Your task to perform on an android device: open chrome and create a bookmark for the current page Image 0: 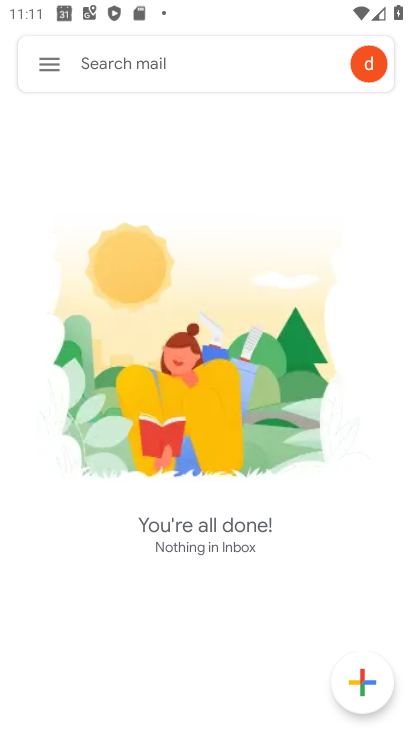
Step 0: press home button
Your task to perform on an android device: open chrome and create a bookmark for the current page Image 1: 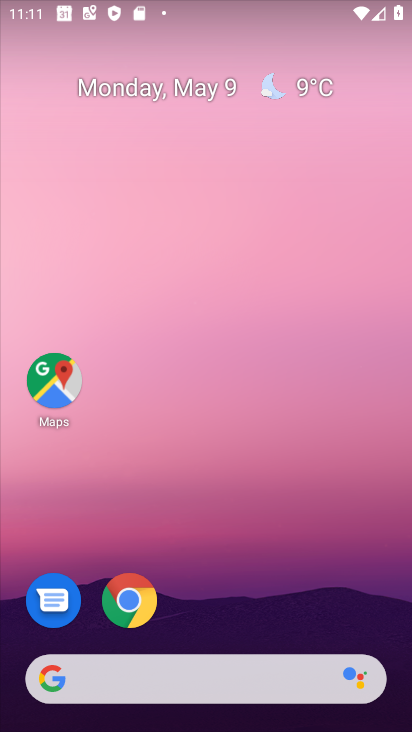
Step 1: drag from (353, 479) to (334, 129)
Your task to perform on an android device: open chrome and create a bookmark for the current page Image 2: 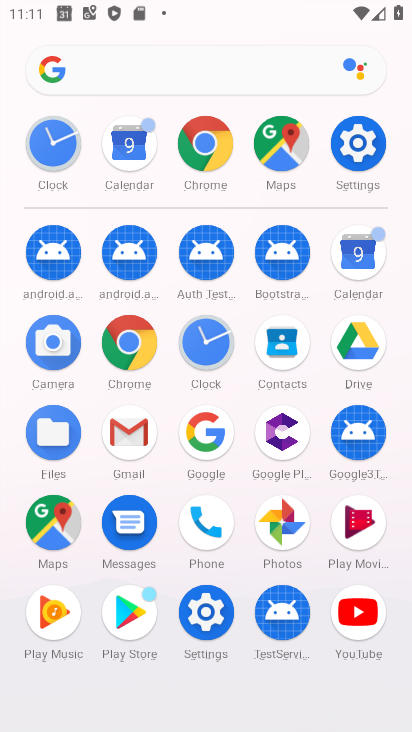
Step 2: click (149, 352)
Your task to perform on an android device: open chrome and create a bookmark for the current page Image 3: 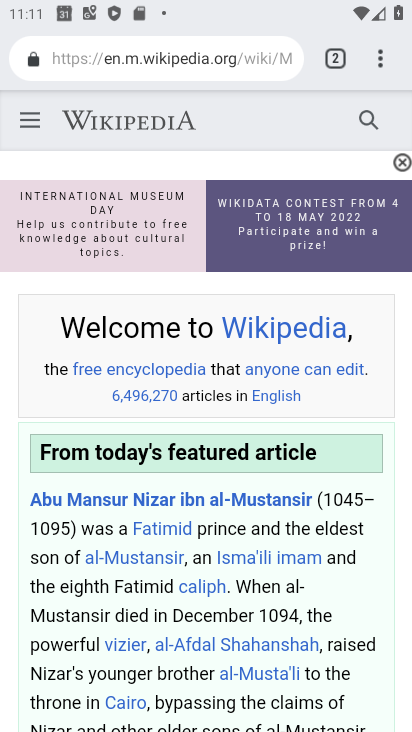
Step 3: task complete